Your task to perform on an android device: turn pop-ups off in chrome Image 0: 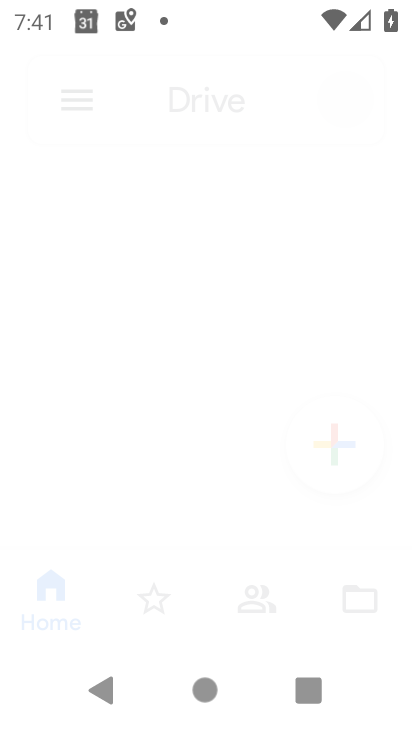
Step 0: drag from (395, 582) to (207, 7)
Your task to perform on an android device: turn pop-ups off in chrome Image 1: 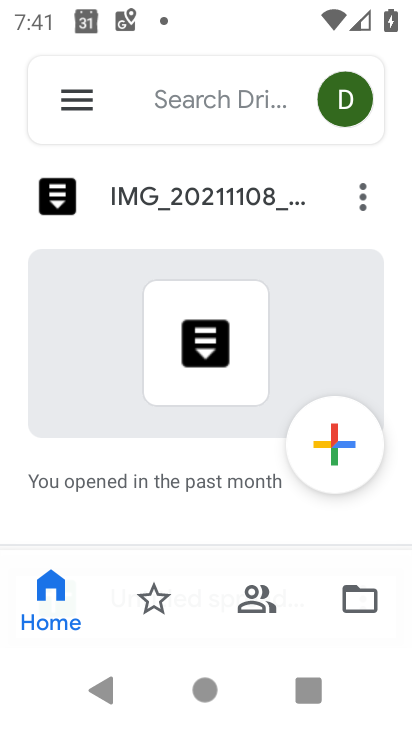
Step 1: press back button
Your task to perform on an android device: turn pop-ups off in chrome Image 2: 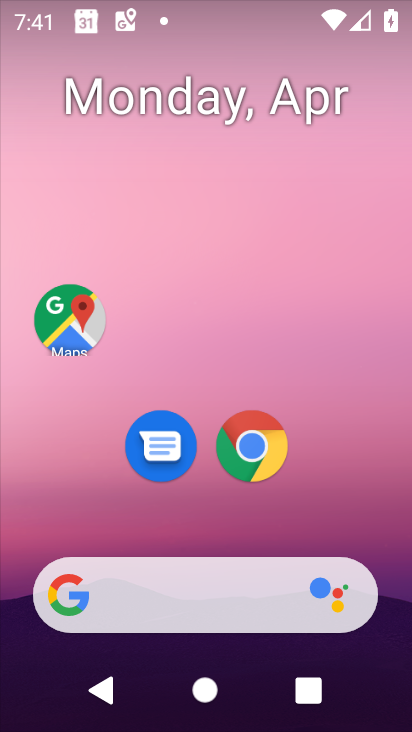
Step 2: drag from (383, 613) to (203, 0)
Your task to perform on an android device: turn pop-ups off in chrome Image 3: 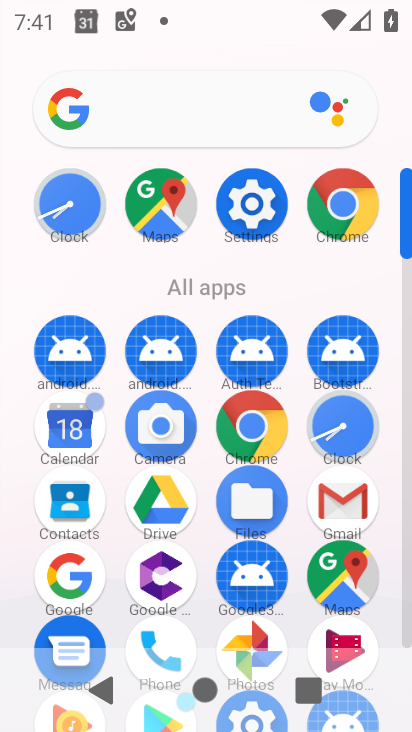
Step 3: click (339, 201)
Your task to perform on an android device: turn pop-ups off in chrome Image 4: 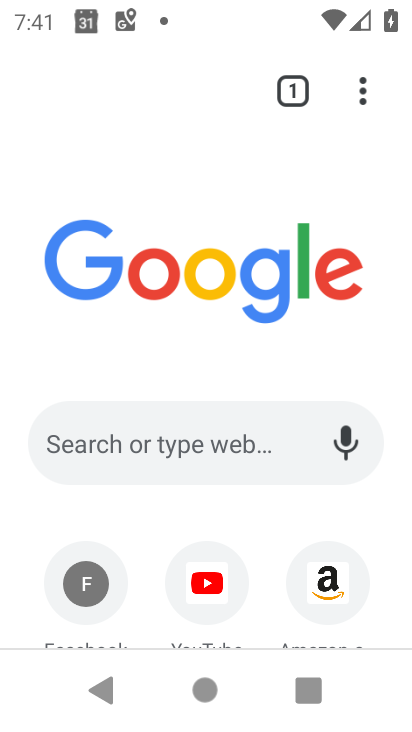
Step 4: drag from (356, 93) to (152, 458)
Your task to perform on an android device: turn pop-ups off in chrome Image 5: 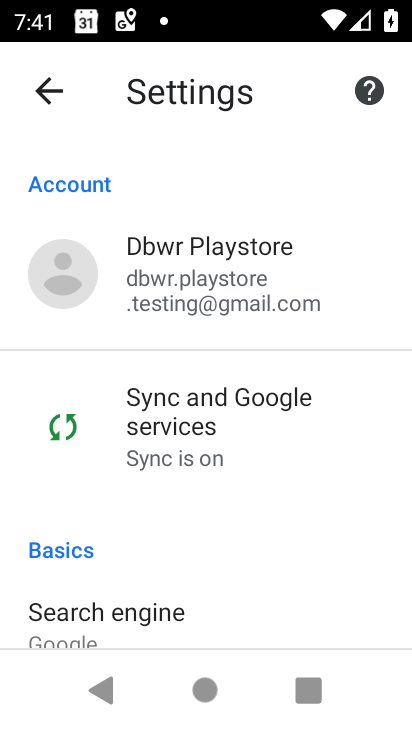
Step 5: drag from (243, 487) to (213, 147)
Your task to perform on an android device: turn pop-ups off in chrome Image 6: 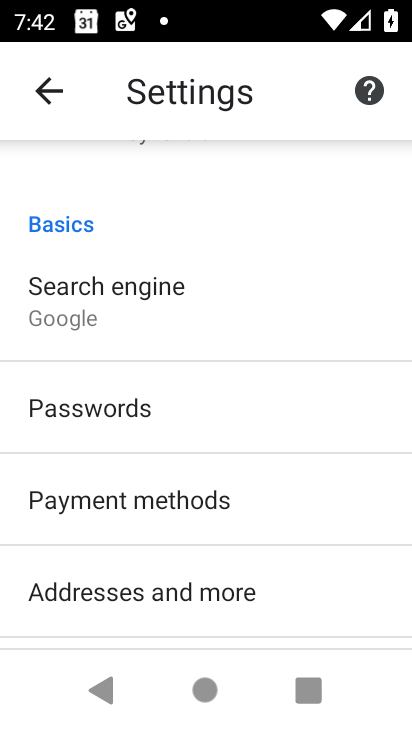
Step 6: drag from (236, 514) to (221, 212)
Your task to perform on an android device: turn pop-ups off in chrome Image 7: 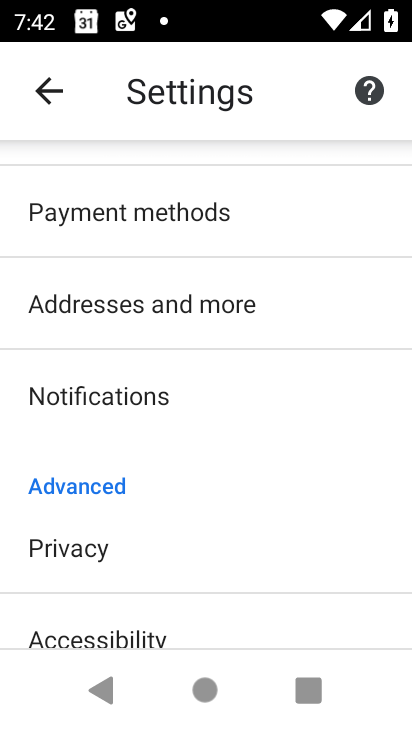
Step 7: drag from (215, 499) to (201, 174)
Your task to perform on an android device: turn pop-ups off in chrome Image 8: 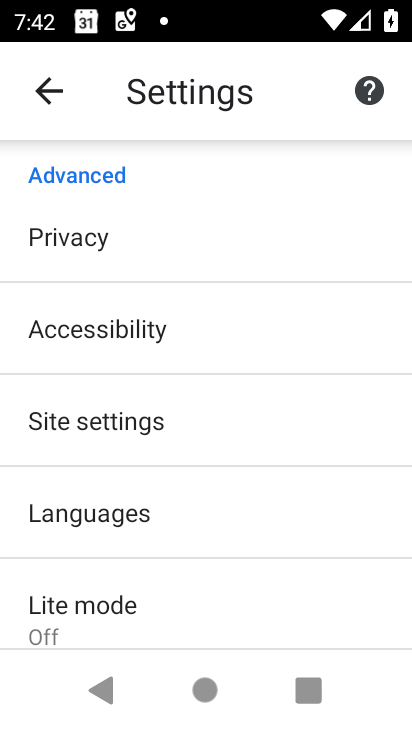
Step 8: click (129, 430)
Your task to perform on an android device: turn pop-ups off in chrome Image 9: 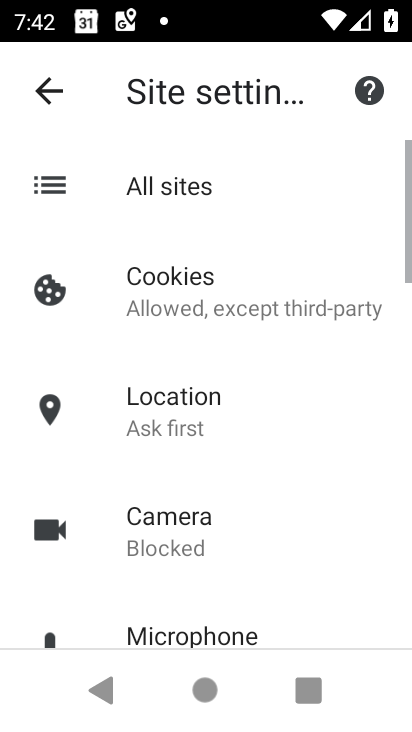
Step 9: drag from (226, 480) to (231, 219)
Your task to perform on an android device: turn pop-ups off in chrome Image 10: 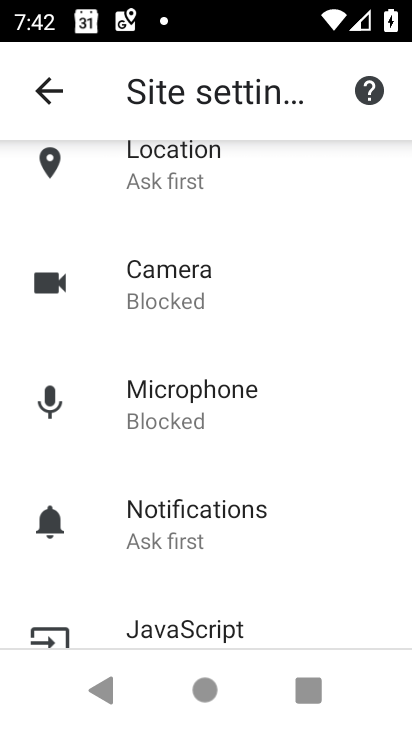
Step 10: drag from (233, 451) to (225, 225)
Your task to perform on an android device: turn pop-ups off in chrome Image 11: 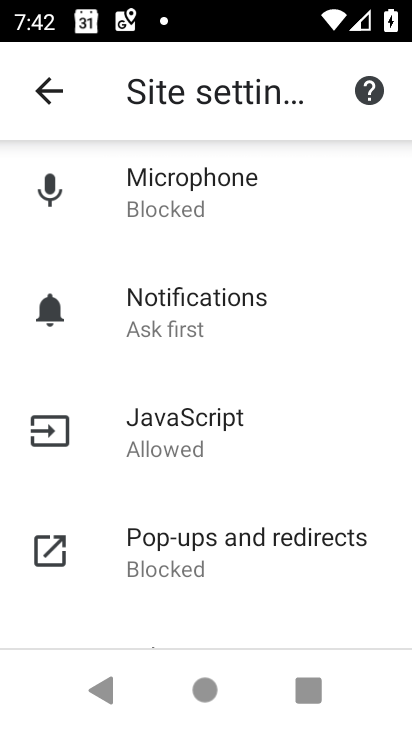
Step 11: click (230, 537)
Your task to perform on an android device: turn pop-ups off in chrome Image 12: 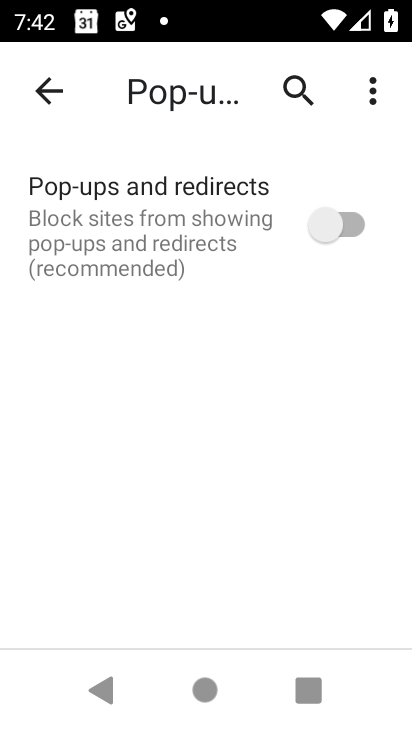
Step 12: task complete